Your task to perform on an android device: Toggle the flashlight Image 0: 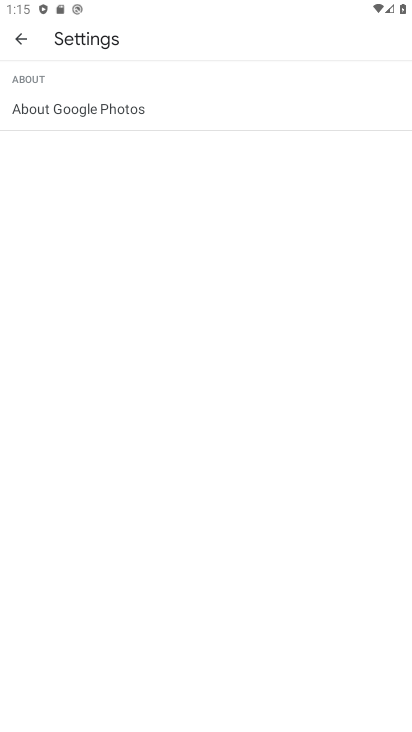
Step 0: press home button
Your task to perform on an android device: Toggle the flashlight Image 1: 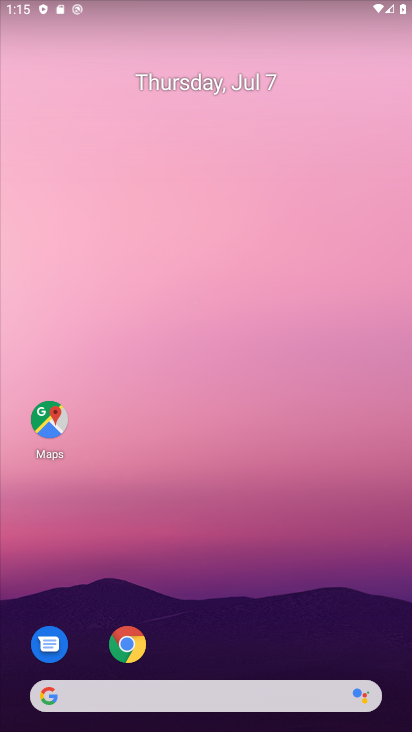
Step 1: drag from (262, 618) to (242, 146)
Your task to perform on an android device: Toggle the flashlight Image 2: 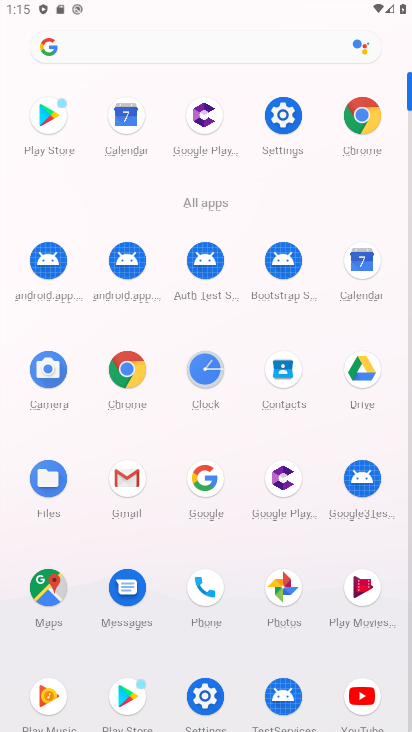
Step 2: click (283, 116)
Your task to perform on an android device: Toggle the flashlight Image 3: 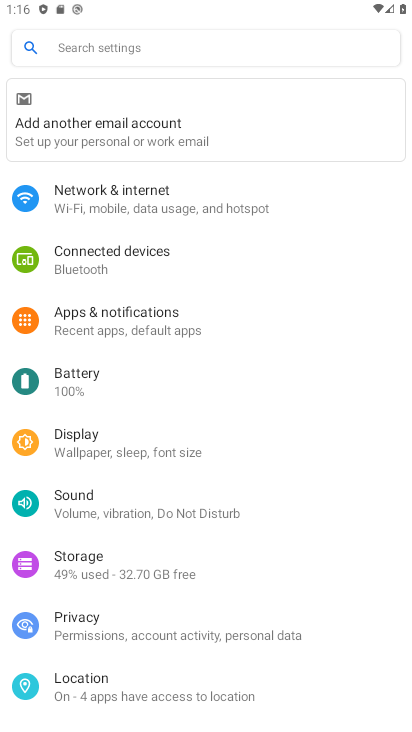
Step 3: click (94, 449)
Your task to perform on an android device: Toggle the flashlight Image 4: 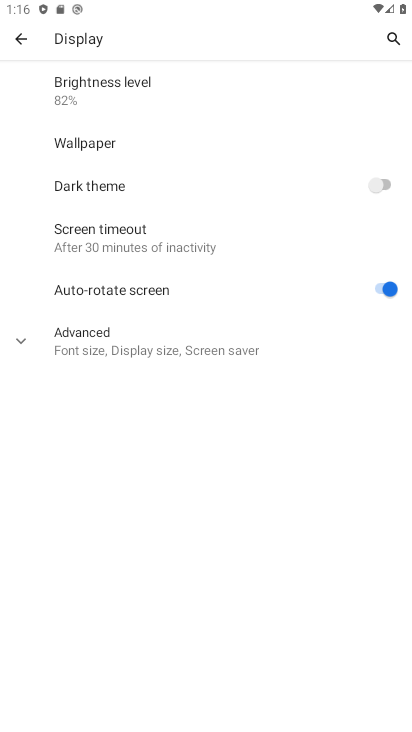
Step 4: click (112, 354)
Your task to perform on an android device: Toggle the flashlight Image 5: 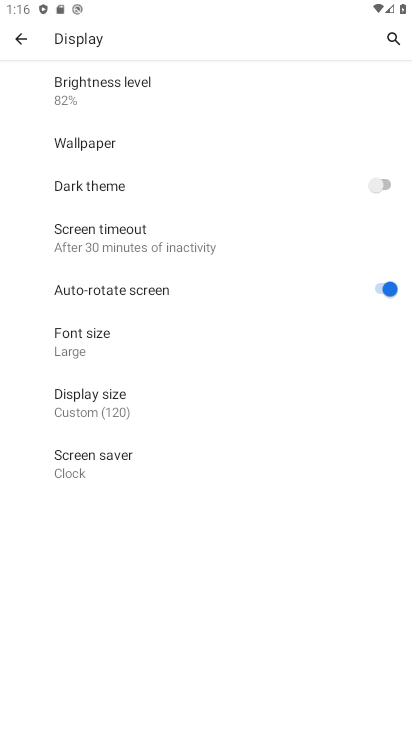
Step 5: click (93, 325)
Your task to perform on an android device: Toggle the flashlight Image 6: 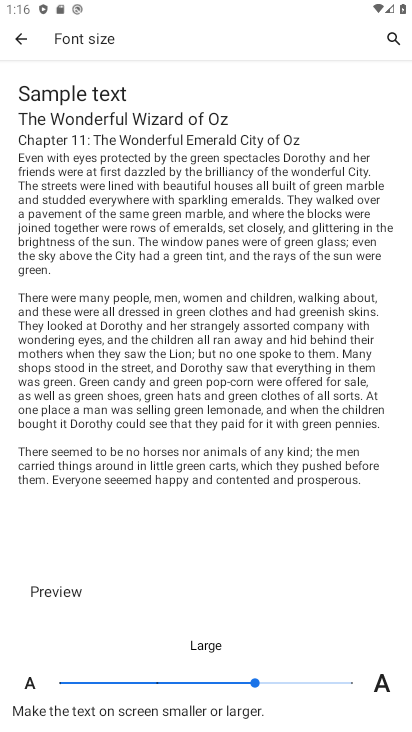
Step 6: press back button
Your task to perform on an android device: Toggle the flashlight Image 7: 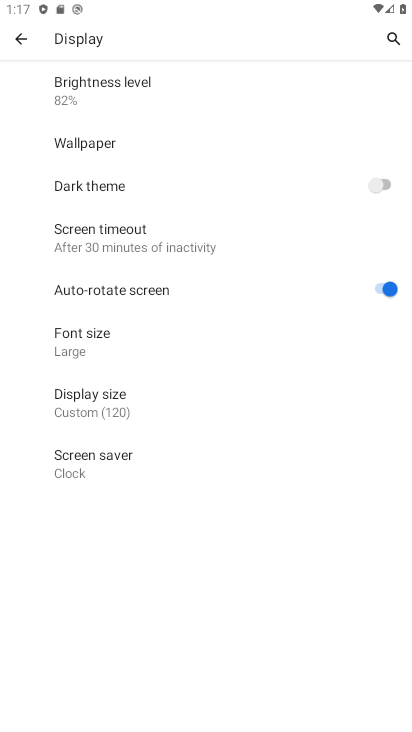
Step 7: press back button
Your task to perform on an android device: Toggle the flashlight Image 8: 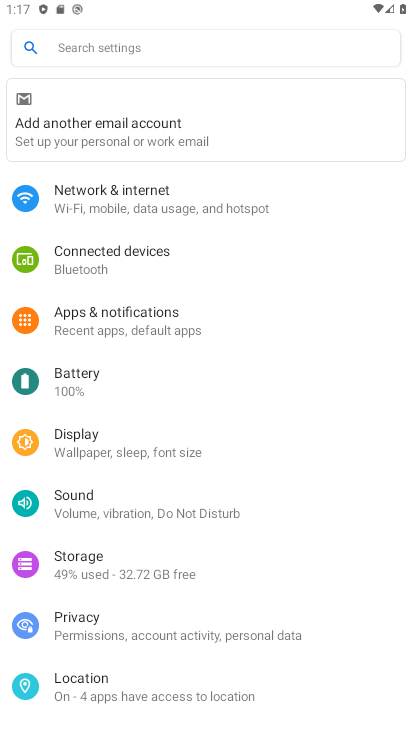
Step 8: drag from (126, 477) to (196, 375)
Your task to perform on an android device: Toggle the flashlight Image 9: 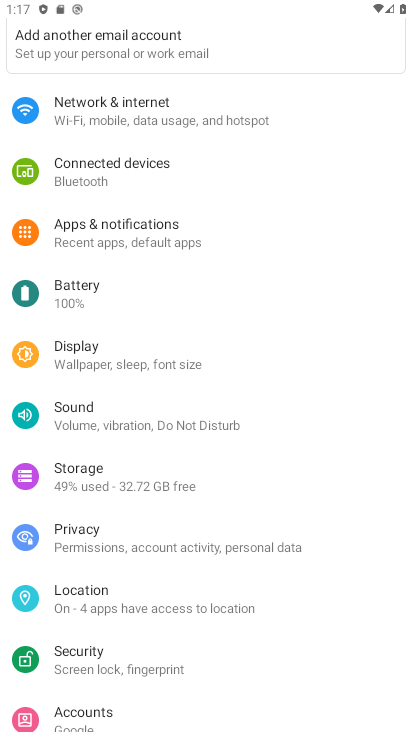
Step 9: drag from (123, 508) to (206, 406)
Your task to perform on an android device: Toggle the flashlight Image 10: 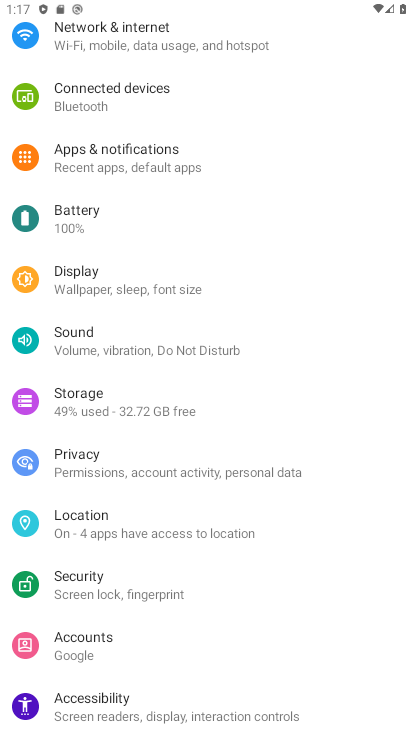
Step 10: click (138, 278)
Your task to perform on an android device: Toggle the flashlight Image 11: 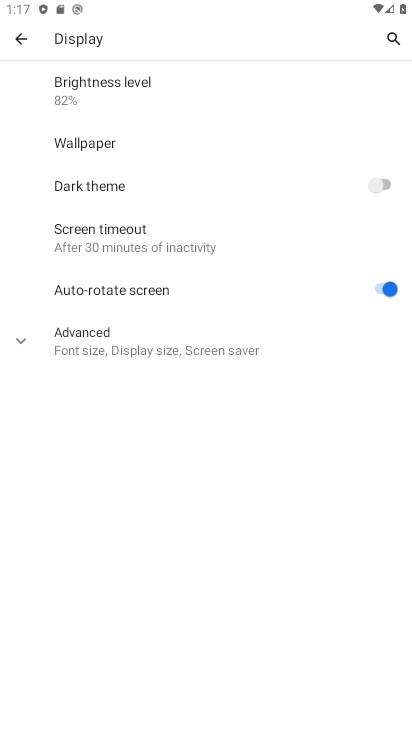
Step 11: task complete